Your task to perform on an android device: Open calendar and show me the first week of next month Image 0: 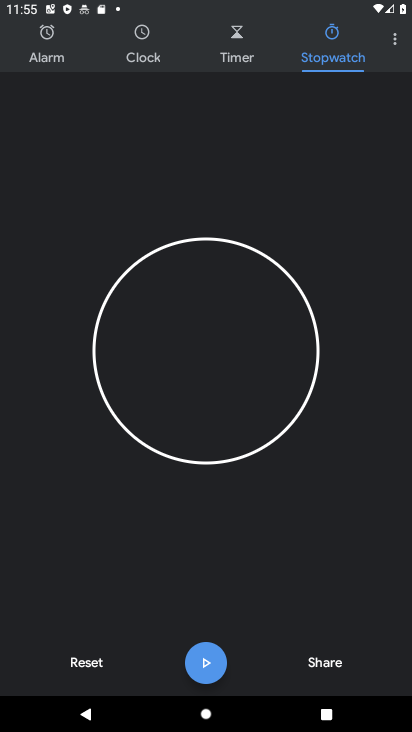
Step 0: press home button
Your task to perform on an android device: Open calendar and show me the first week of next month Image 1: 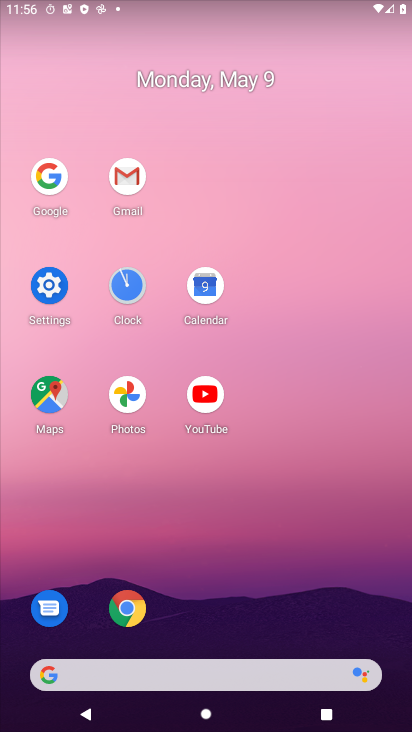
Step 1: click (198, 274)
Your task to perform on an android device: Open calendar and show me the first week of next month Image 2: 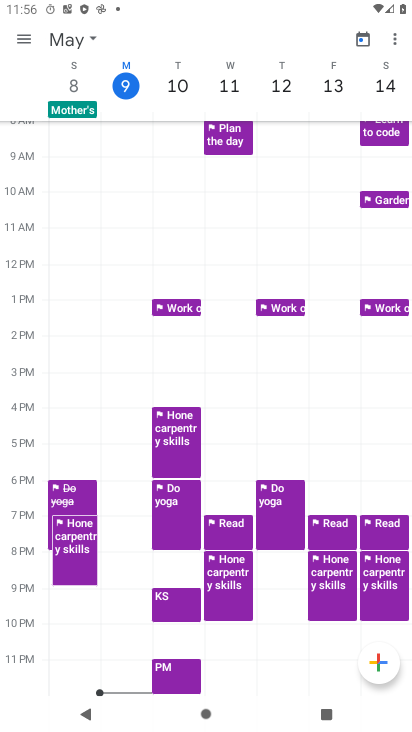
Step 2: click (74, 43)
Your task to perform on an android device: Open calendar and show me the first week of next month Image 3: 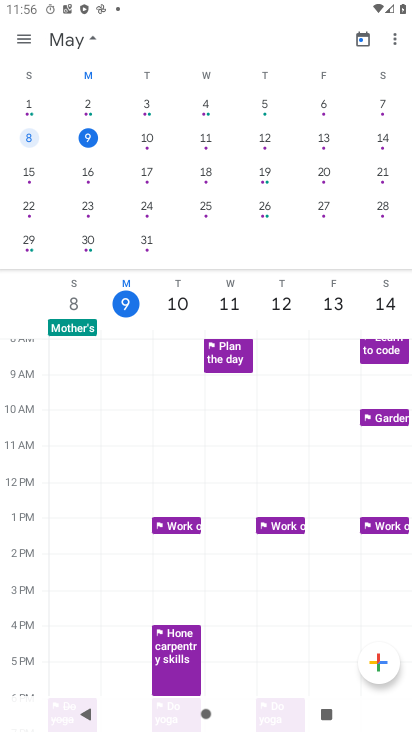
Step 3: drag from (389, 148) to (12, 77)
Your task to perform on an android device: Open calendar and show me the first week of next month Image 4: 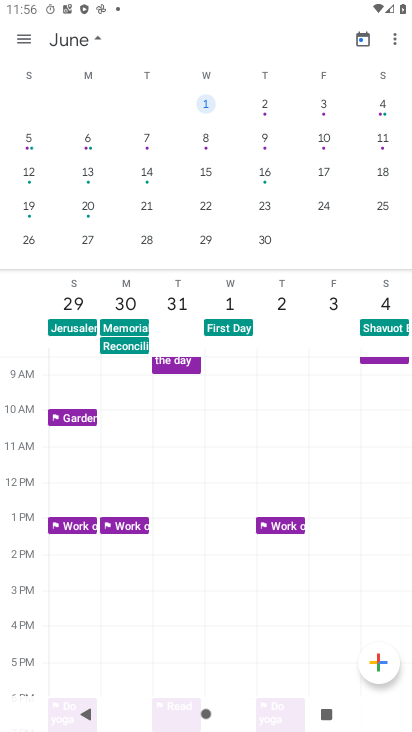
Step 4: click (28, 45)
Your task to perform on an android device: Open calendar and show me the first week of next month Image 5: 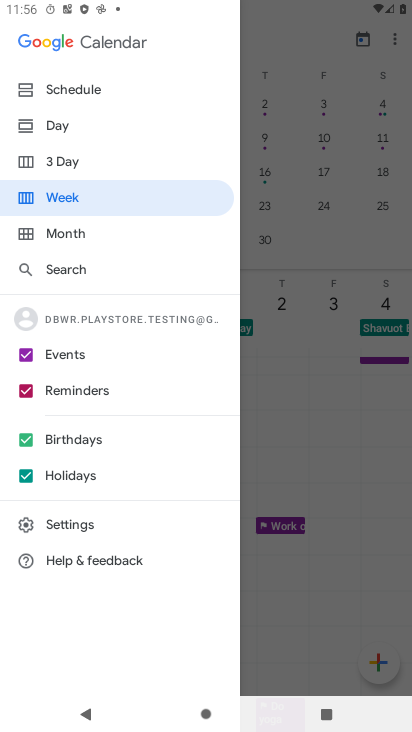
Step 5: click (73, 196)
Your task to perform on an android device: Open calendar and show me the first week of next month Image 6: 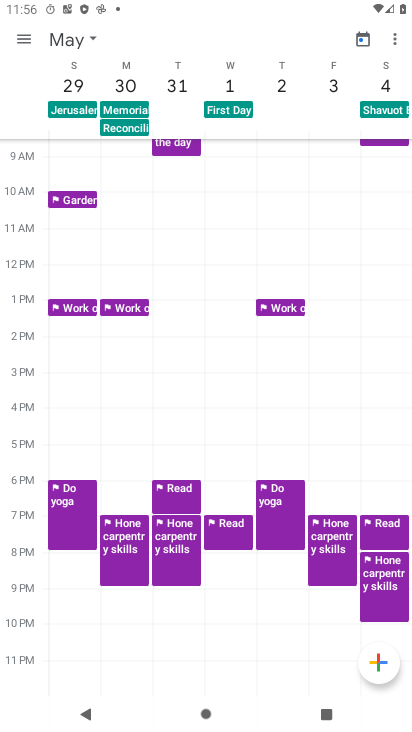
Step 6: task complete